Your task to perform on an android device: What's the weather? Image 0: 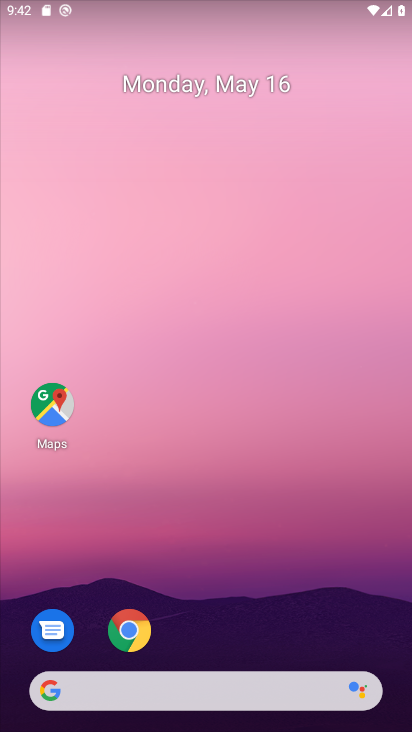
Step 0: click (259, 696)
Your task to perform on an android device: What's the weather? Image 1: 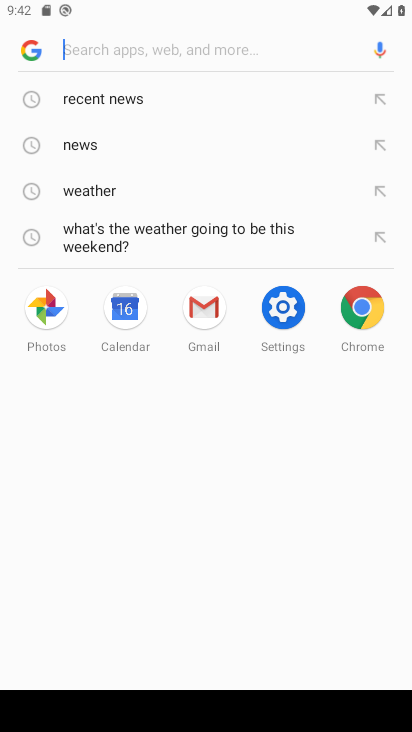
Step 1: click (73, 181)
Your task to perform on an android device: What's the weather? Image 2: 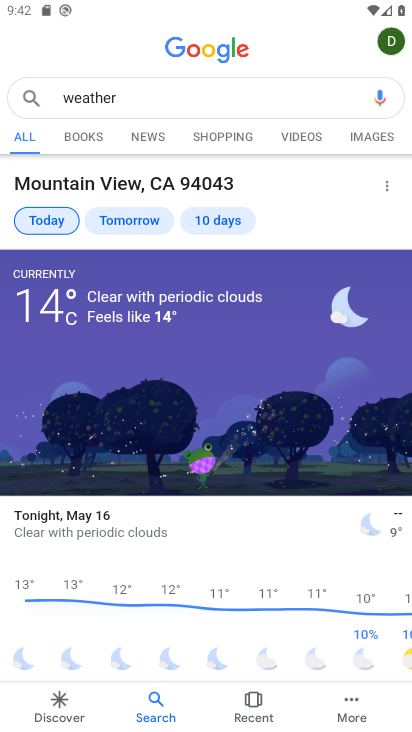
Step 2: click (64, 221)
Your task to perform on an android device: What's the weather? Image 3: 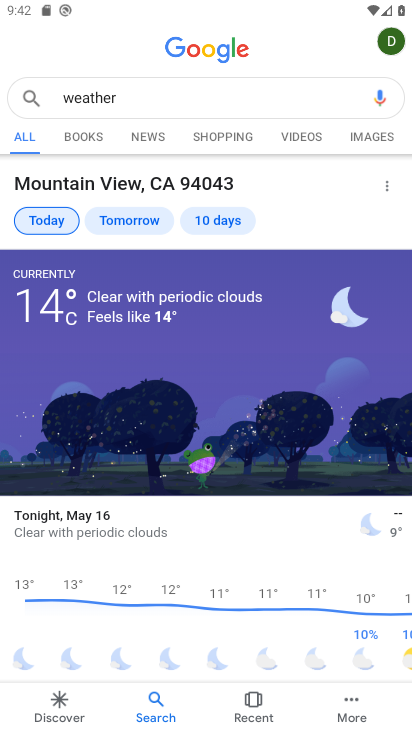
Step 3: click (51, 213)
Your task to perform on an android device: What's the weather? Image 4: 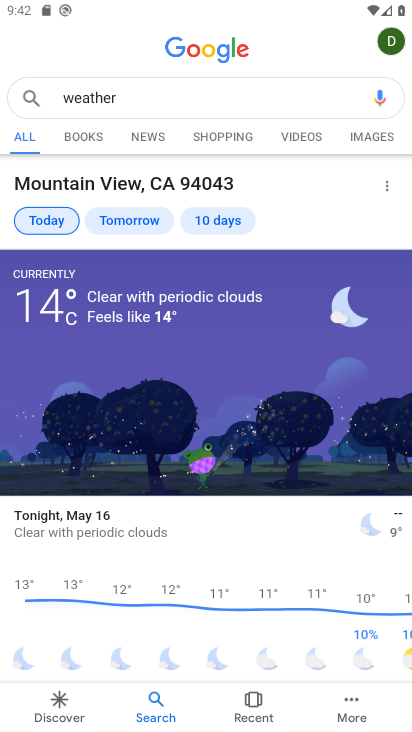
Step 4: click (51, 215)
Your task to perform on an android device: What's the weather? Image 5: 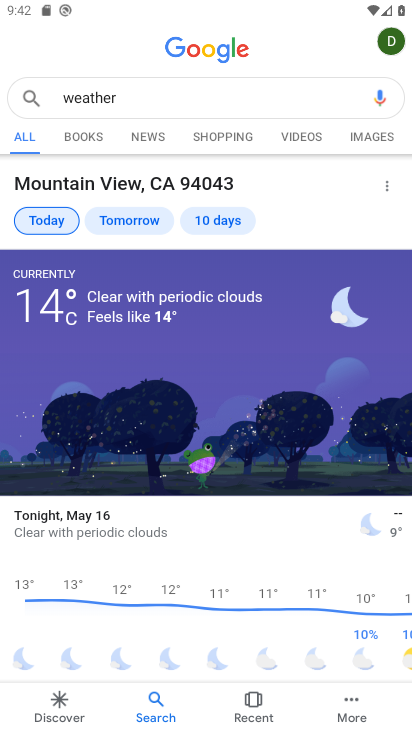
Step 5: click (52, 224)
Your task to perform on an android device: What's the weather? Image 6: 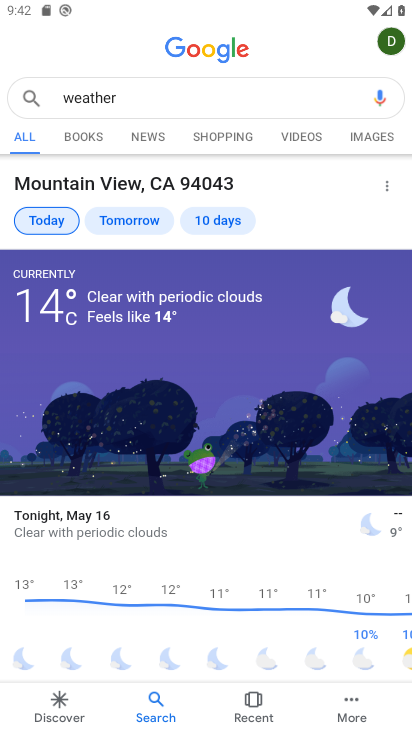
Step 6: click (51, 213)
Your task to perform on an android device: What's the weather? Image 7: 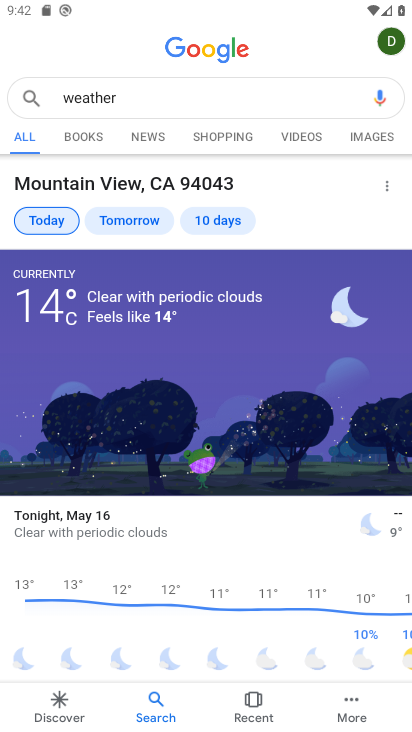
Step 7: click (51, 209)
Your task to perform on an android device: What's the weather? Image 8: 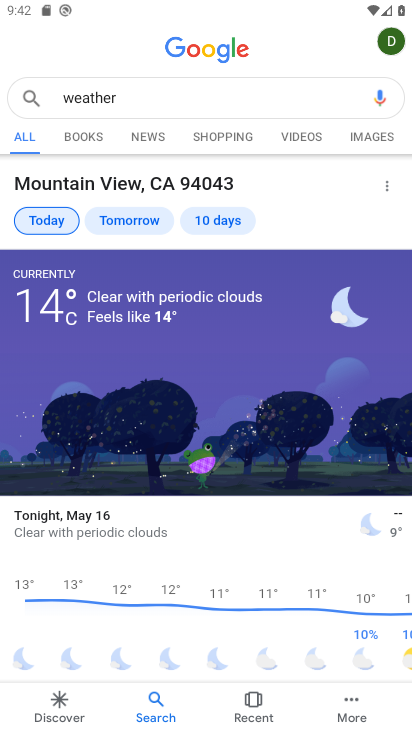
Step 8: task complete